Your task to perform on an android device: Show me the alarms in the clock app Image 0: 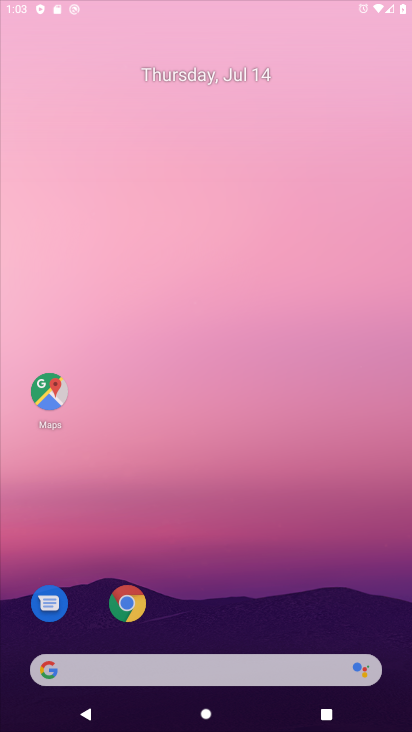
Step 0: press home button
Your task to perform on an android device: Show me the alarms in the clock app Image 1: 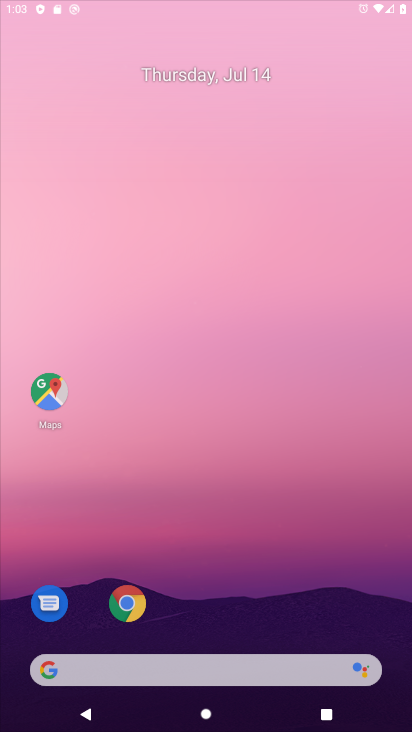
Step 1: click (361, 88)
Your task to perform on an android device: Show me the alarms in the clock app Image 2: 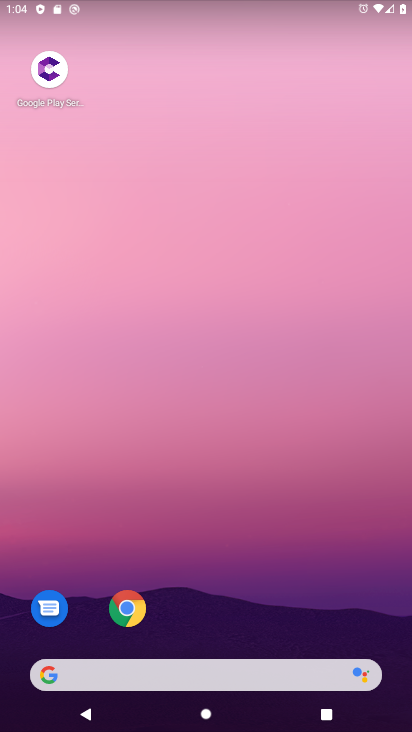
Step 2: drag from (232, 623) to (233, 129)
Your task to perform on an android device: Show me the alarms in the clock app Image 3: 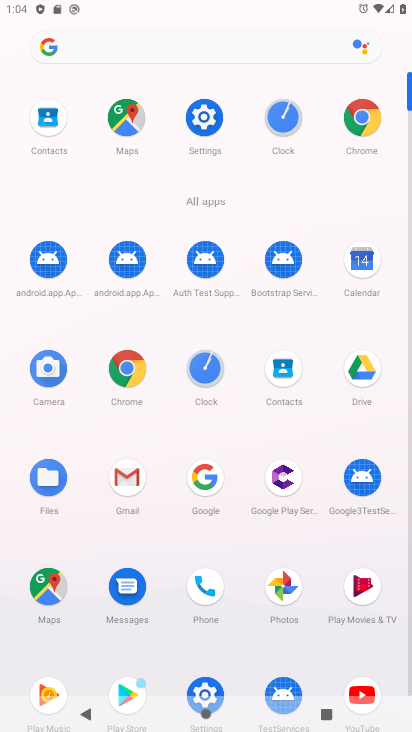
Step 3: click (211, 370)
Your task to perform on an android device: Show me the alarms in the clock app Image 4: 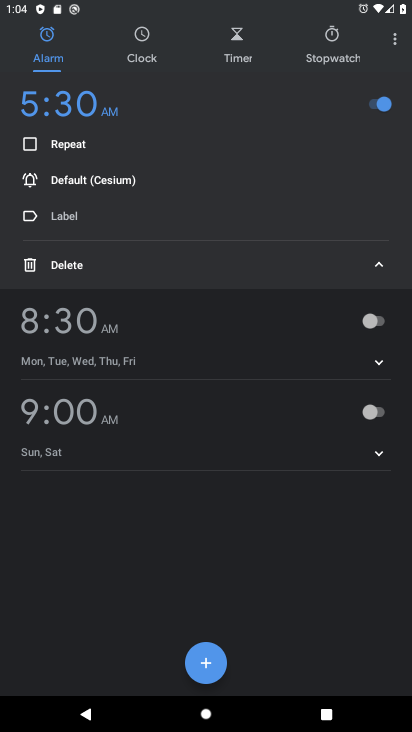
Step 4: task complete